Your task to perform on an android device: clear all cookies in the chrome app Image 0: 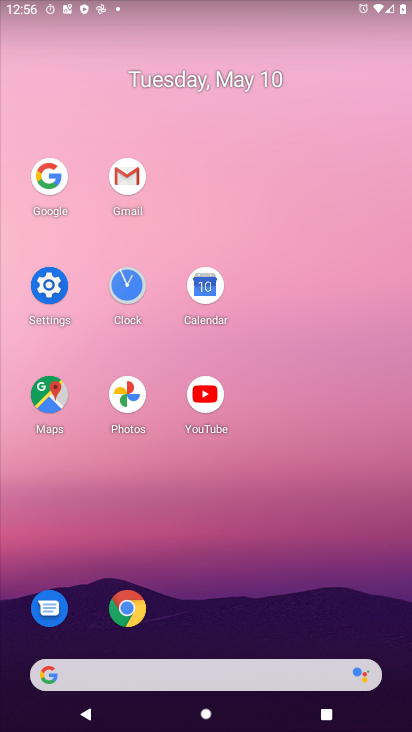
Step 0: click (144, 595)
Your task to perform on an android device: clear all cookies in the chrome app Image 1: 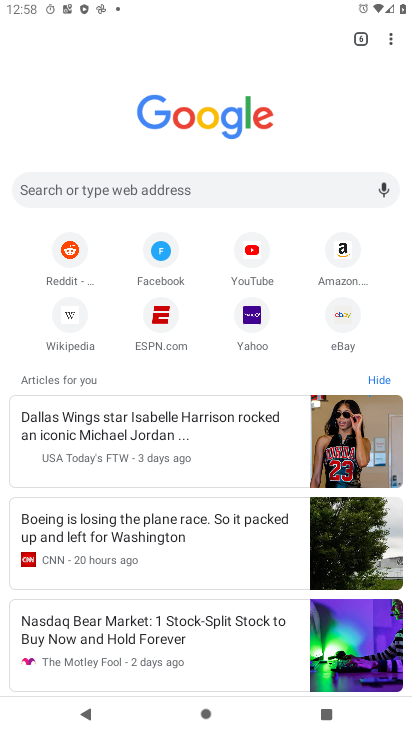
Step 1: click (391, 35)
Your task to perform on an android device: clear all cookies in the chrome app Image 2: 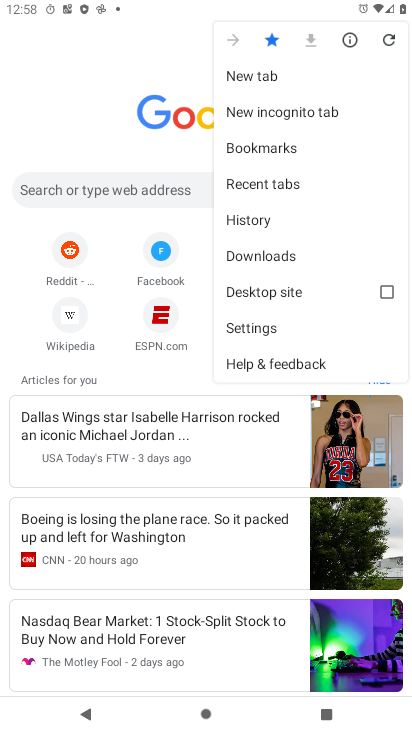
Step 2: click (283, 320)
Your task to perform on an android device: clear all cookies in the chrome app Image 3: 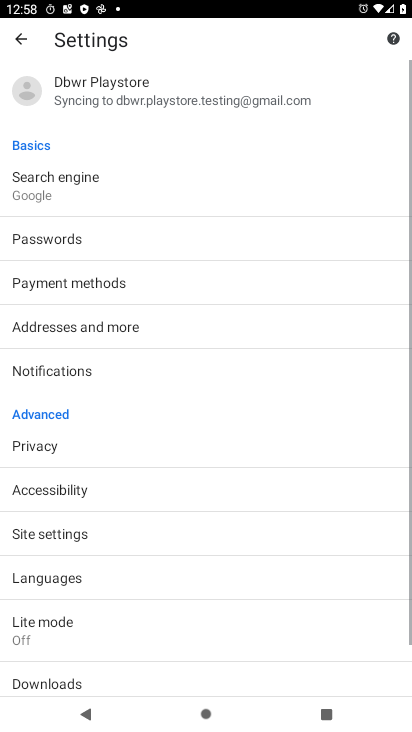
Step 3: drag from (162, 627) to (136, 388)
Your task to perform on an android device: clear all cookies in the chrome app Image 4: 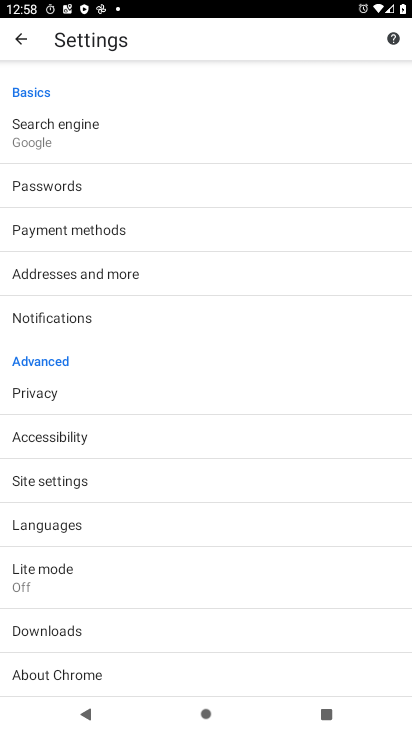
Step 4: click (65, 386)
Your task to perform on an android device: clear all cookies in the chrome app Image 5: 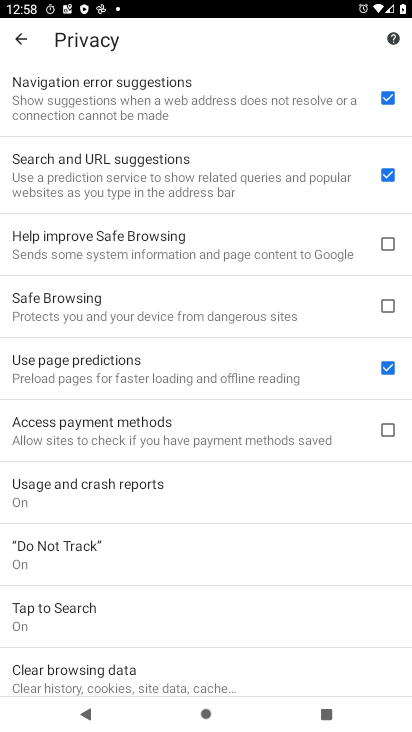
Step 5: click (191, 668)
Your task to perform on an android device: clear all cookies in the chrome app Image 6: 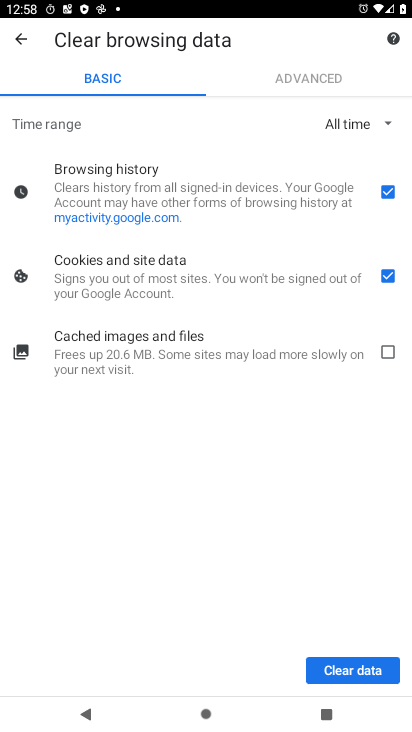
Step 6: click (364, 673)
Your task to perform on an android device: clear all cookies in the chrome app Image 7: 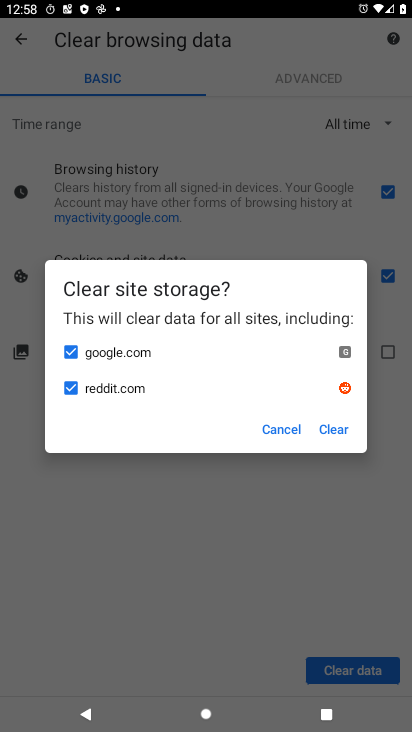
Step 7: click (334, 433)
Your task to perform on an android device: clear all cookies in the chrome app Image 8: 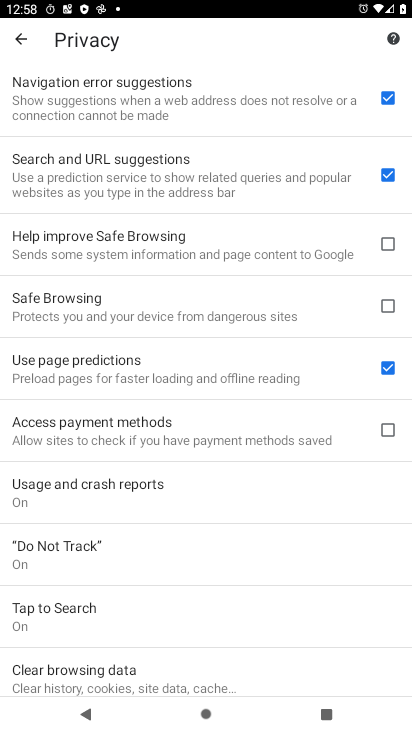
Step 8: task complete